Your task to perform on an android device: Search for Italian restaurants on Maps Image 0: 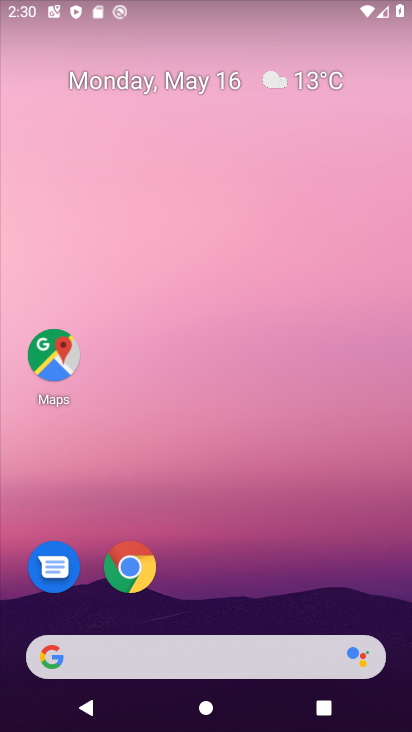
Step 0: click (60, 357)
Your task to perform on an android device: Search for Italian restaurants on Maps Image 1: 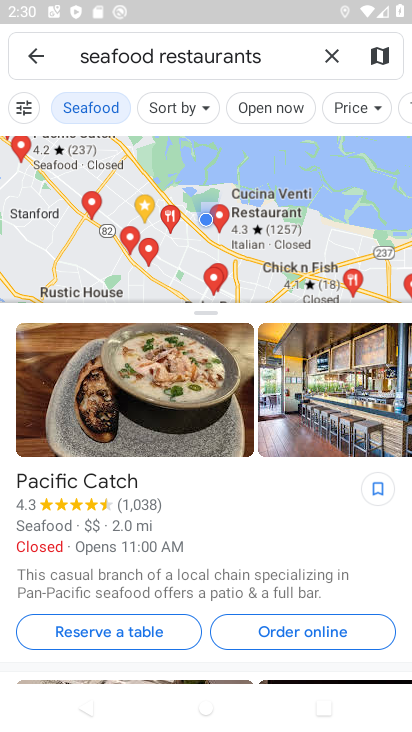
Step 1: click (290, 53)
Your task to perform on an android device: Search for Italian restaurants on Maps Image 2: 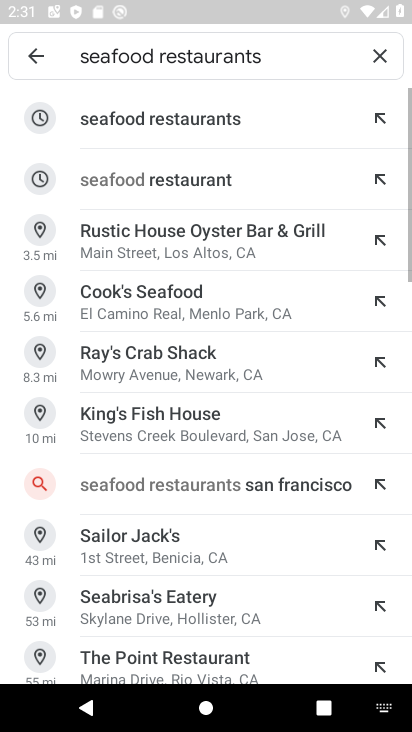
Step 2: click (378, 53)
Your task to perform on an android device: Search for Italian restaurants on Maps Image 3: 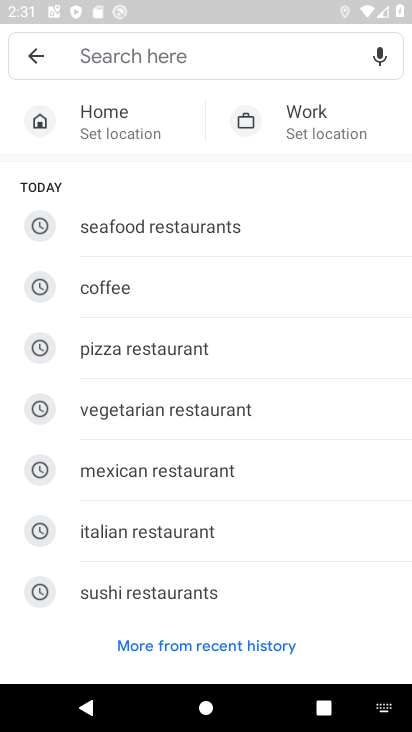
Step 3: type "Italian restaurants"
Your task to perform on an android device: Search for Italian restaurants on Maps Image 4: 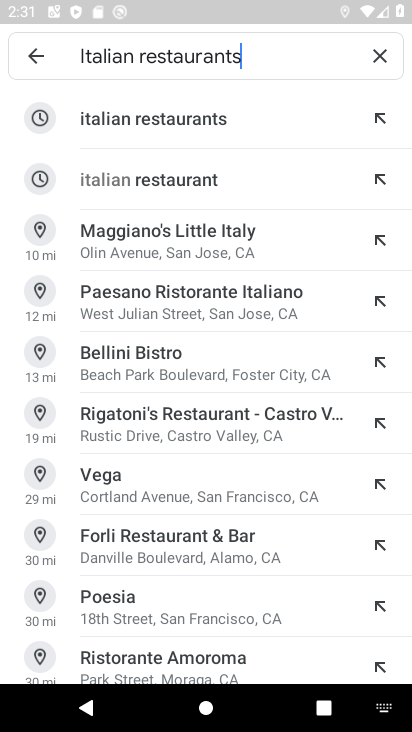
Step 4: click (225, 120)
Your task to perform on an android device: Search for Italian restaurants on Maps Image 5: 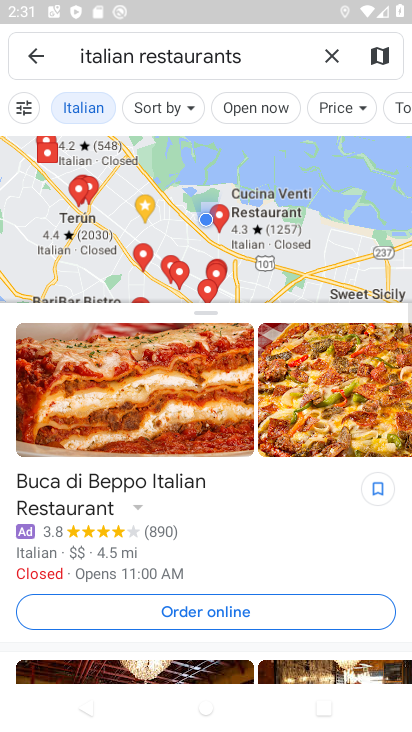
Step 5: task complete